Your task to perform on an android device: turn on sleep mode Image 0: 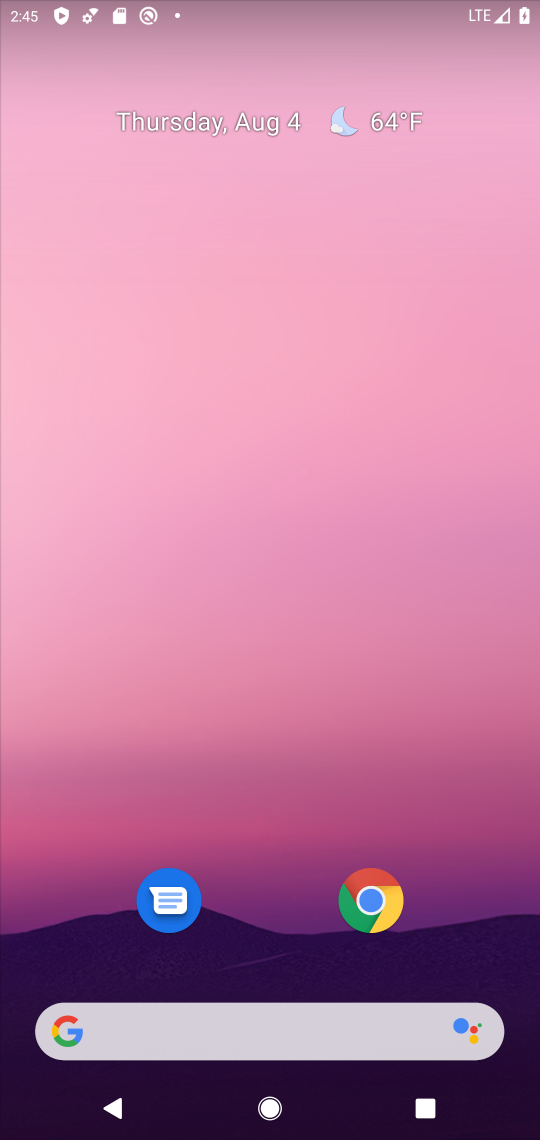
Step 0: drag from (522, 937) to (309, 47)
Your task to perform on an android device: turn on sleep mode Image 1: 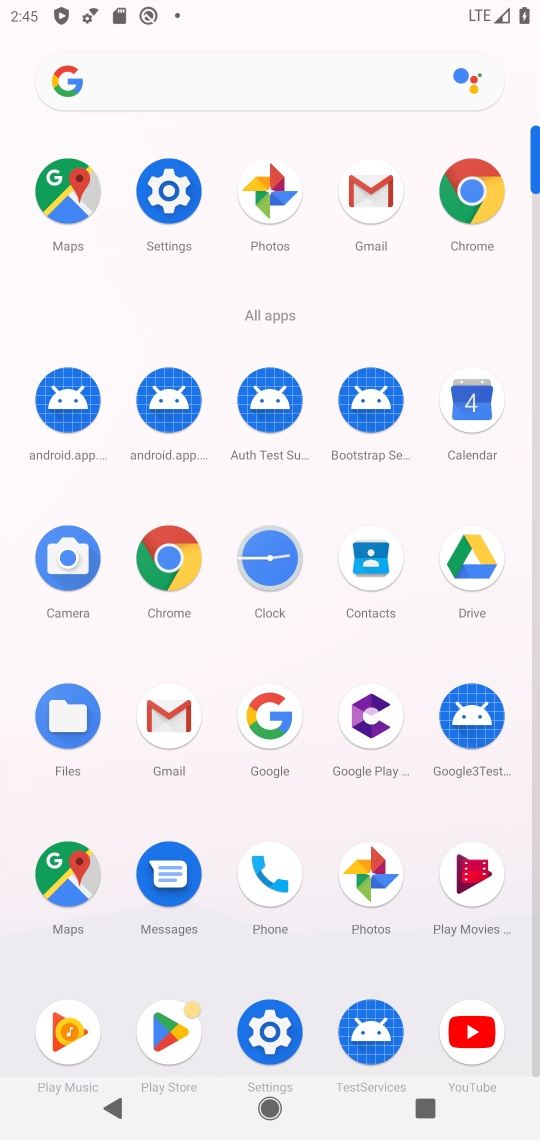
Step 1: click (182, 200)
Your task to perform on an android device: turn on sleep mode Image 2: 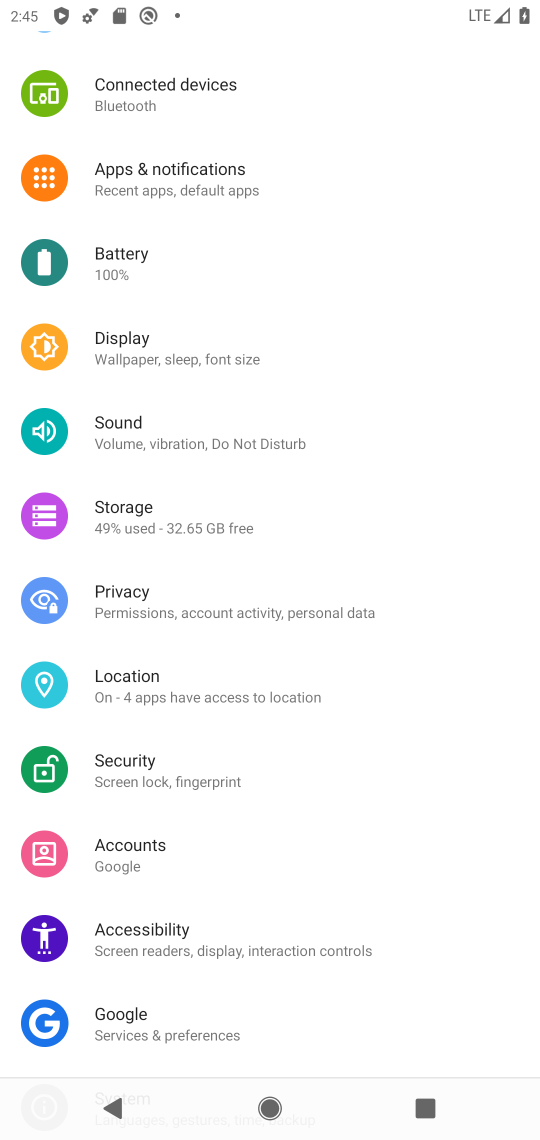
Step 2: click (237, 353)
Your task to perform on an android device: turn on sleep mode Image 3: 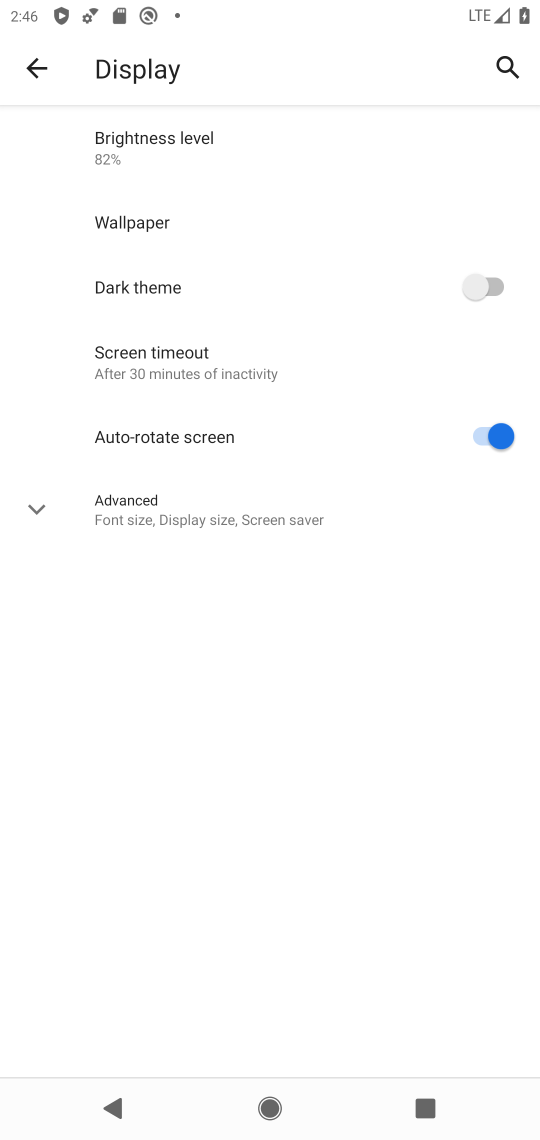
Step 3: click (317, 504)
Your task to perform on an android device: turn on sleep mode Image 4: 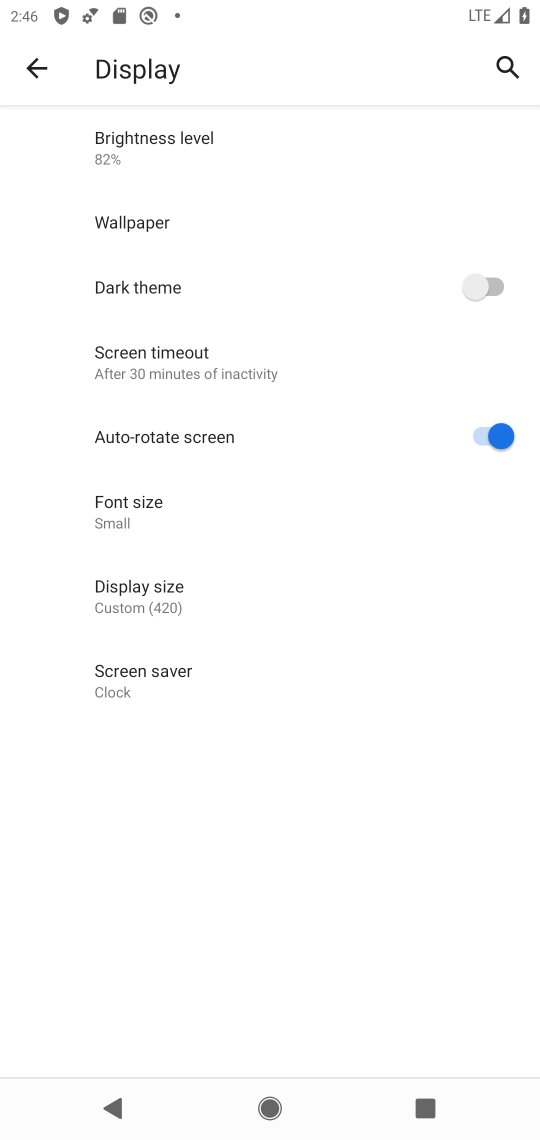
Step 4: task complete